Your task to perform on an android device: see sites visited before in the chrome app Image 0: 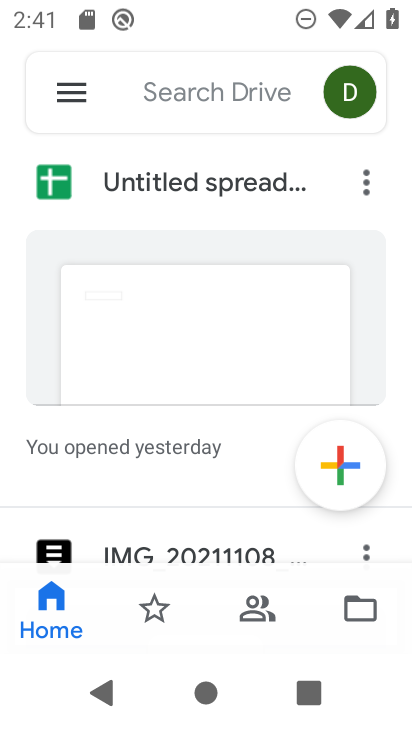
Step 0: press home button
Your task to perform on an android device: see sites visited before in the chrome app Image 1: 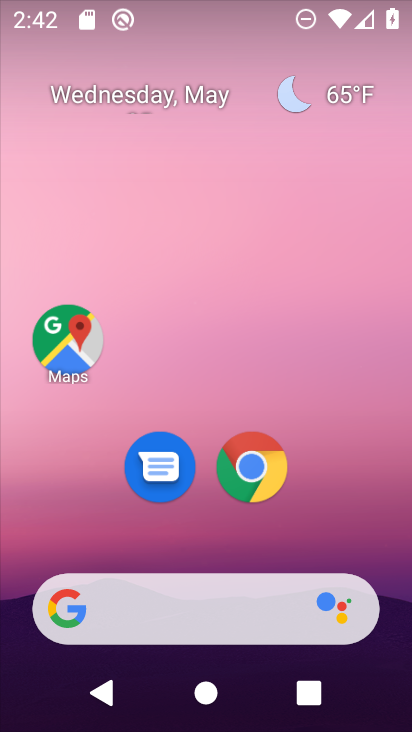
Step 1: click (263, 466)
Your task to perform on an android device: see sites visited before in the chrome app Image 2: 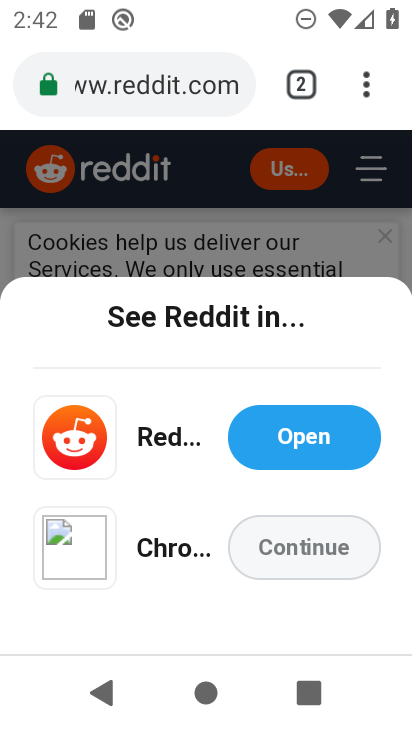
Step 2: click (373, 84)
Your task to perform on an android device: see sites visited before in the chrome app Image 3: 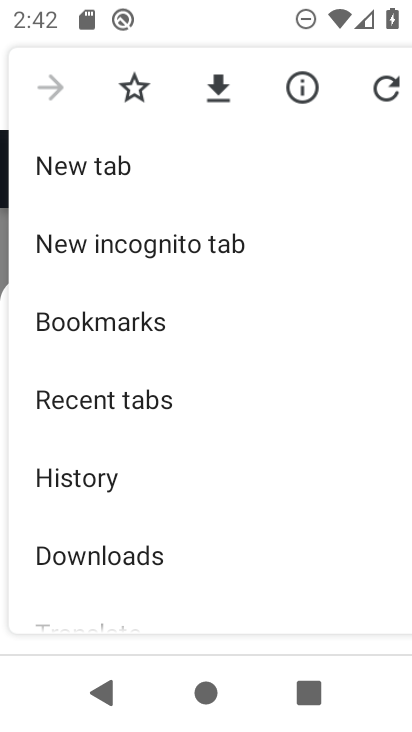
Step 3: click (135, 466)
Your task to perform on an android device: see sites visited before in the chrome app Image 4: 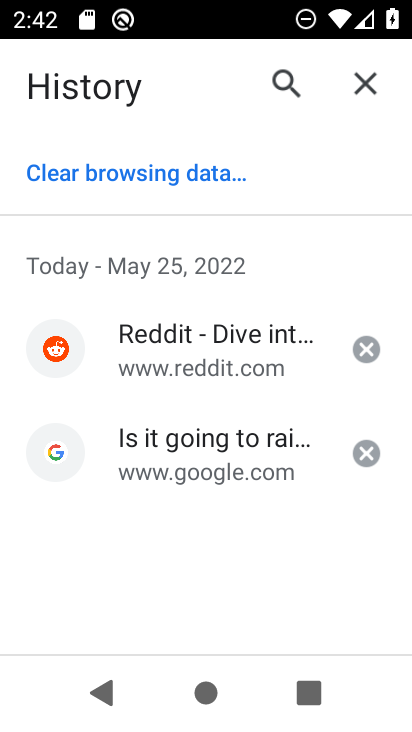
Step 4: task complete